Your task to perform on an android device: Open the calendar and show me this week's events Image 0: 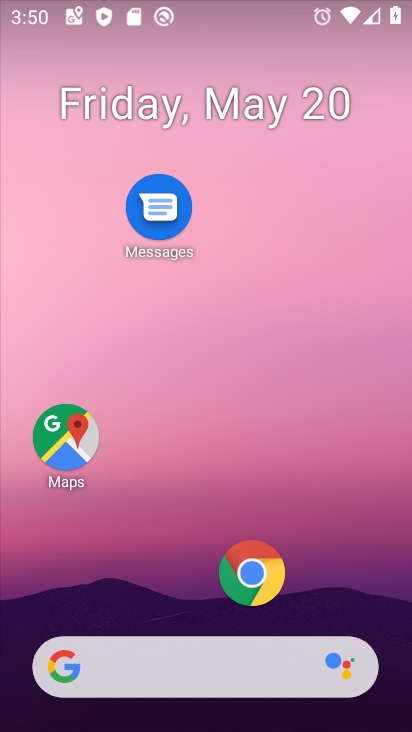
Step 0: drag from (212, 613) to (245, 21)
Your task to perform on an android device: Open the calendar and show me this week's events Image 1: 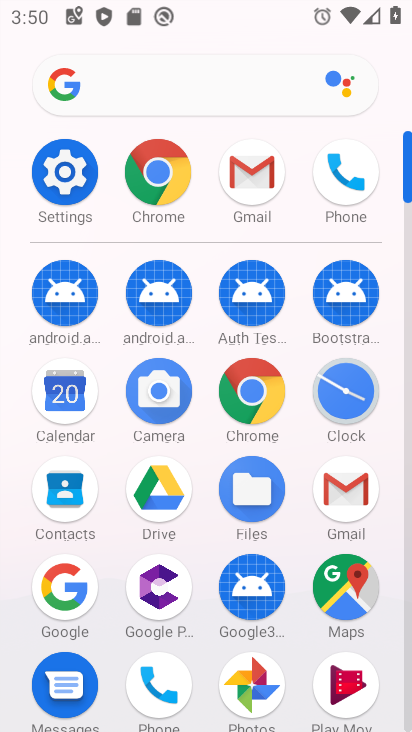
Step 1: click (82, 401)
Your task to perform on an android device: Open the calendar and show me this week's events Image 2: 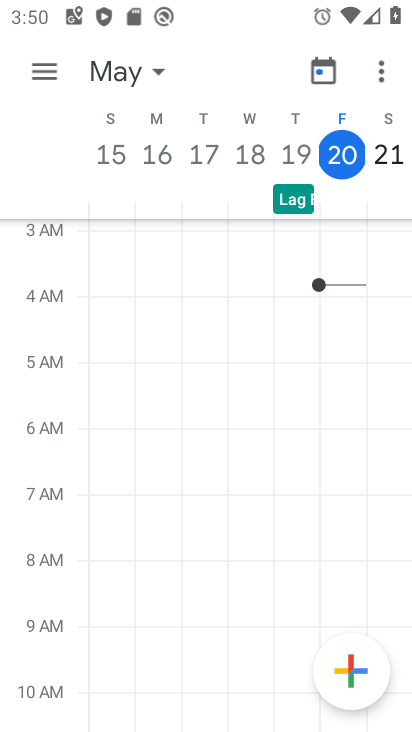
Step 2: click (44, 70)
Your task to perform on an android device: Open the calendar and show me this week's events Image 3: 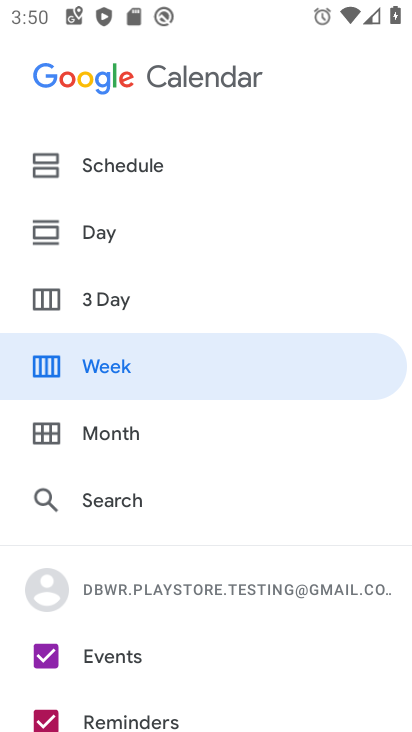
Step 3: click (110, 374)
Your task to perform on an android device: Open the calendar and show me this week's events Image 4: 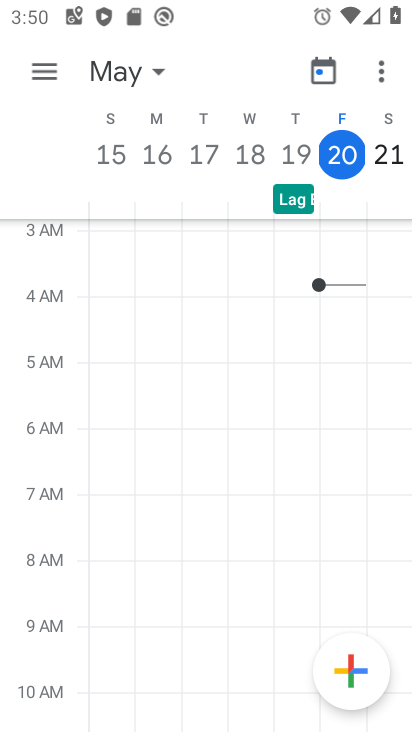
Step 4: task complete